Your task to perform on an android device: turn off sleep mode Image 0: 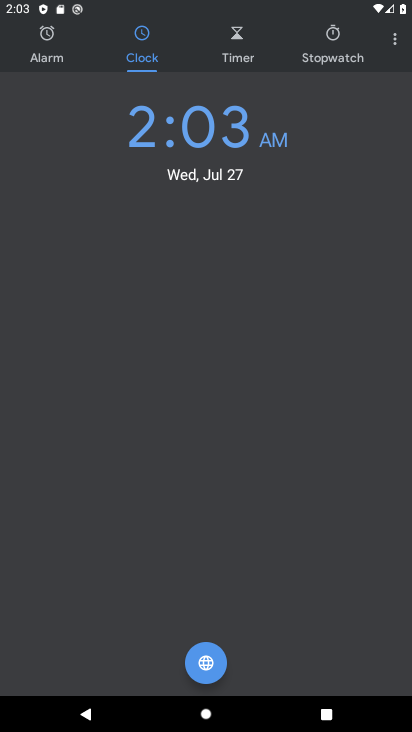
Step 0: press home button
Your task to perform on an android device: turn off sleep mode Image 1: 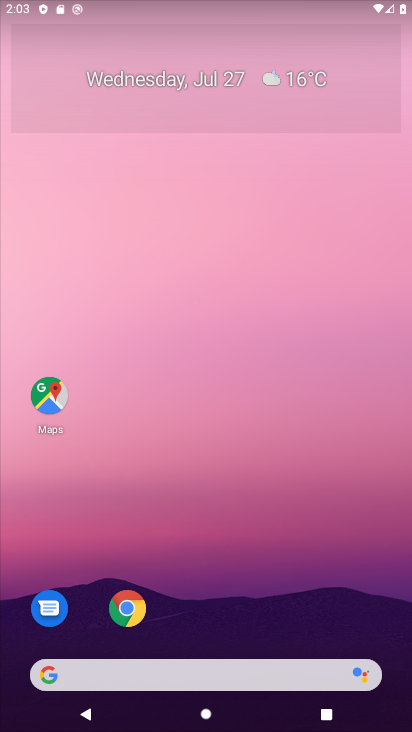
Step 1: drag from (299, 522) to (318, 159)
Your task to perform on an android device: turn off sleep mode Image 2: 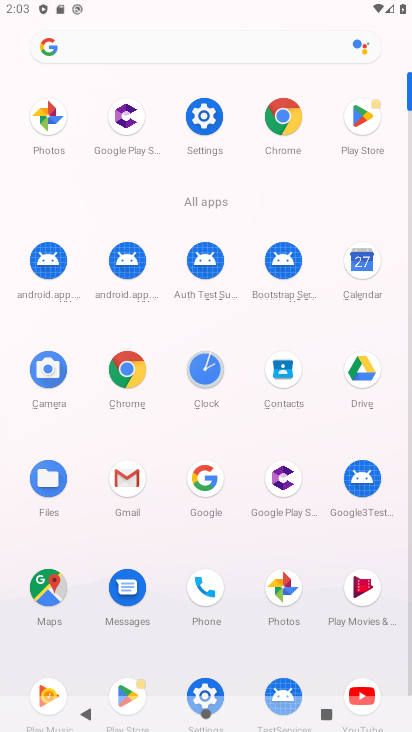
Step 2: click (199, 126)
Your task to perform on an android device: turn off sleep mode Image 3: 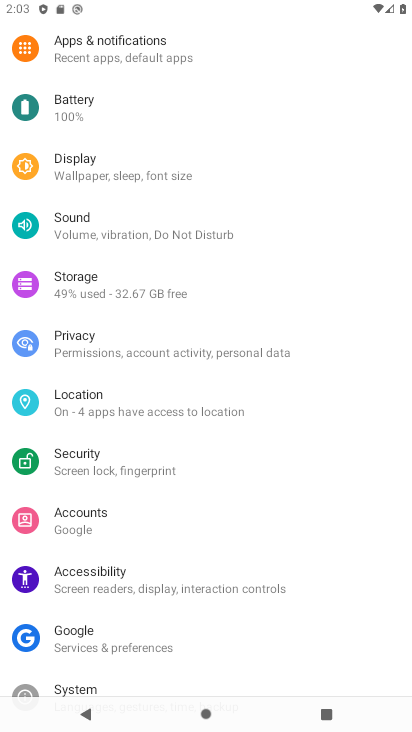
Step 3: task complete